Your task to perform on an android device: Show me the alarms in the clock app Image 0: 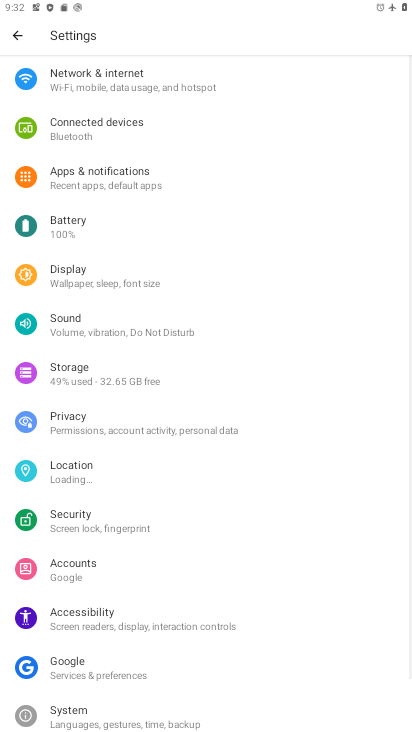
Step 0: press home button
Your task to perform on an android device: Show me the alarms in the clock app Image 1: 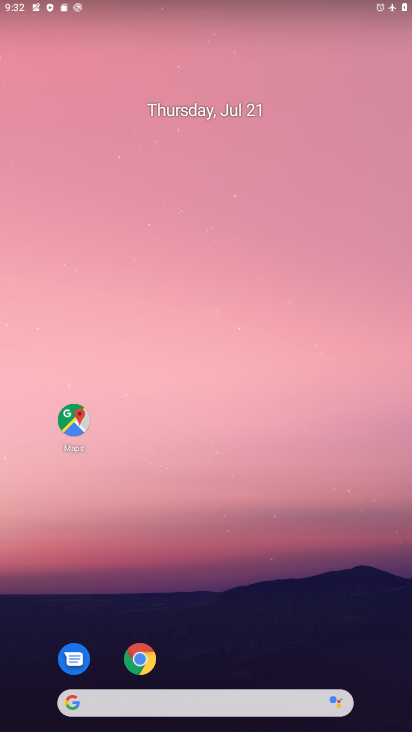
Step 1: drag from (186, 675) to (128, 23)
Your task to perform on an android device: Show me the alarms in the clock app Image 2: 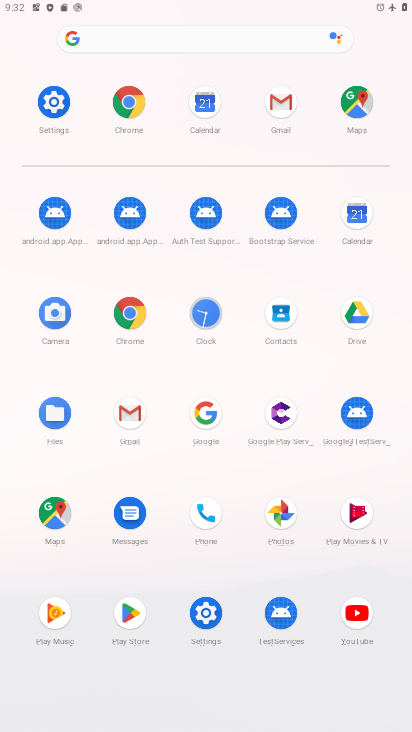
Step 2: click (204, 317)
Your task to perform on an android device: Show me the alarms in the clock app Image 3: 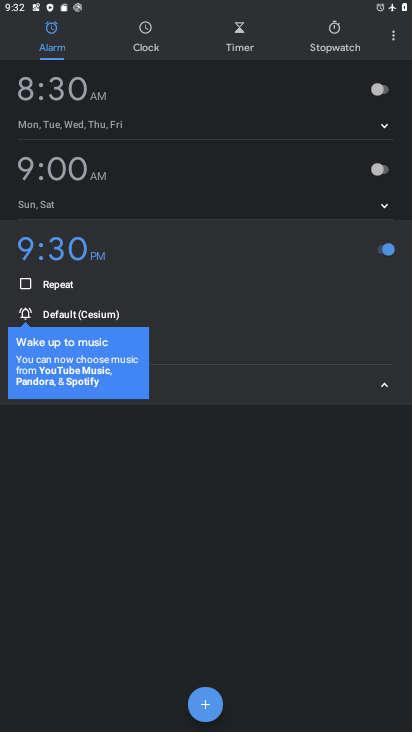
Step 3: click (232, 519)
Your task to perform on an android device: Show me the alarms in the clock app Image 4: 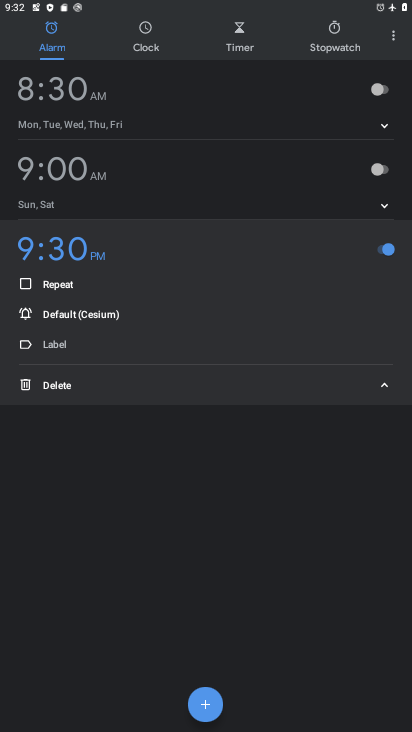
Step 4: click (380, 388)
Your task to perform on an android device: Show me the alarms in the clock app Image 5: 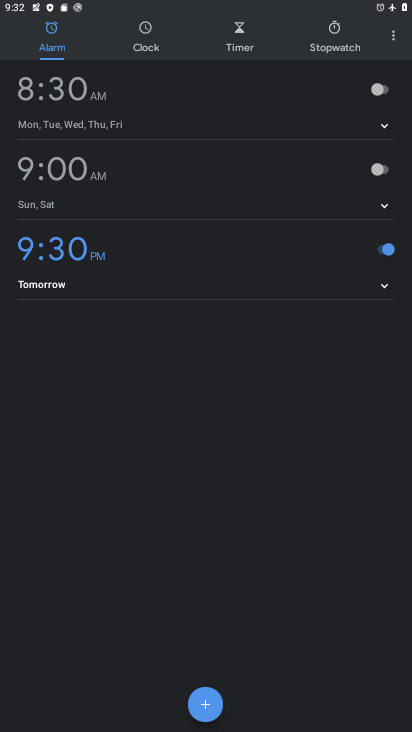
Step 5: task complete